Your task to perform on an android device: Open Google Chrome Image 0: 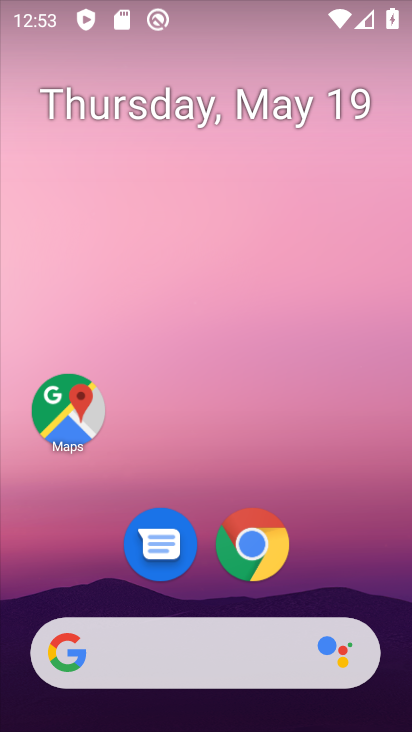
Step 0: drag from (261, 691) to (93, 287)
Your task to perform on an android device: Open Google Chrome Image 1: 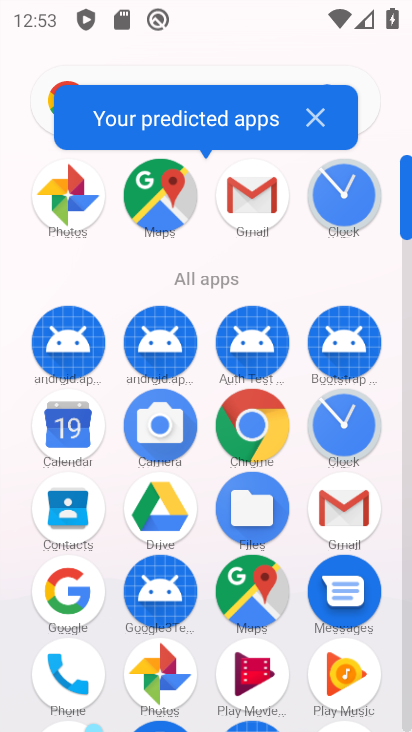
Step 1: click (246, 408)
Your task to perform on an android device: Open Google Chrome Image 2: 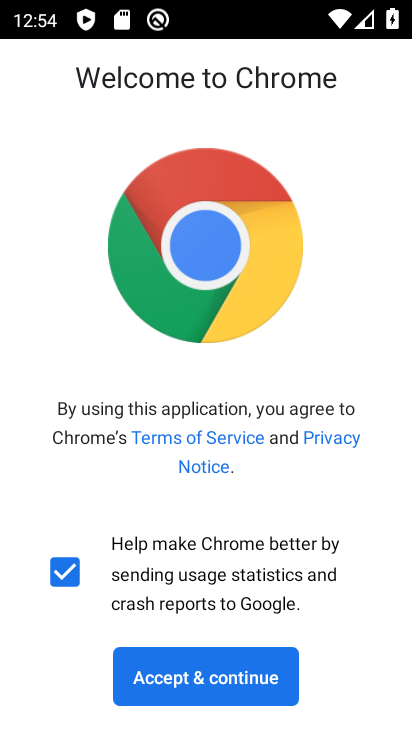
Step 2: click (226, 658)
Your task to perform on an android device: Open Google Chrome Image 3: 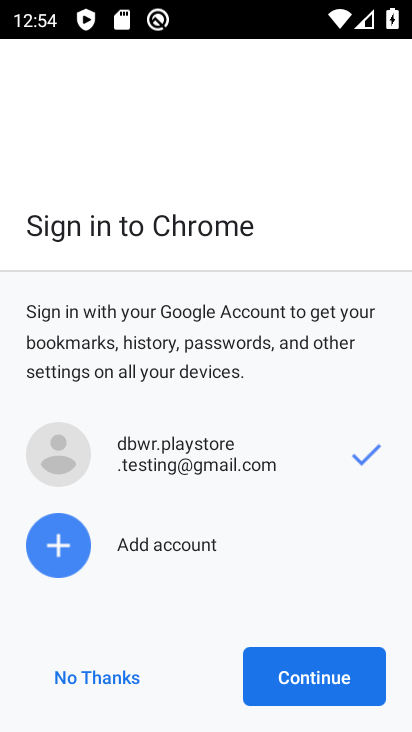
Step 3: click (310, 678)
Your task to perform on an android device: Open Google Chrome Image 4: 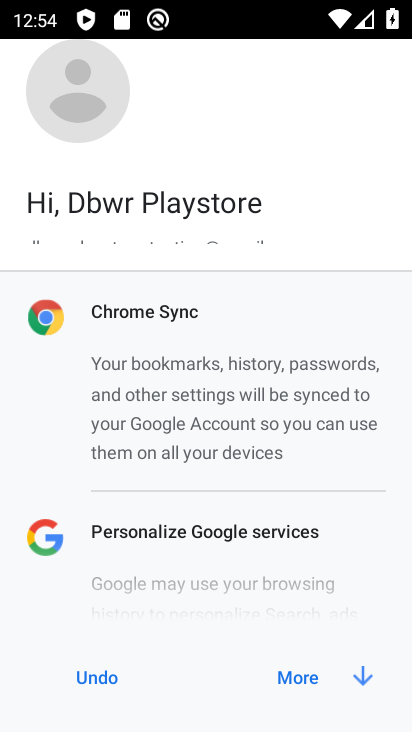
Step 4: click (355, 671)
Your task to perform on an android device: Open Google Chrome Image 5: 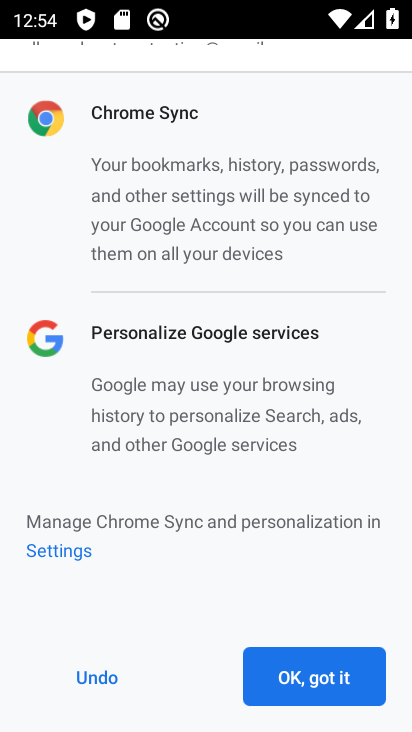
Step 5: click (338, 702)
Your task to perform on an android device: Open Google Chrome Image 6: 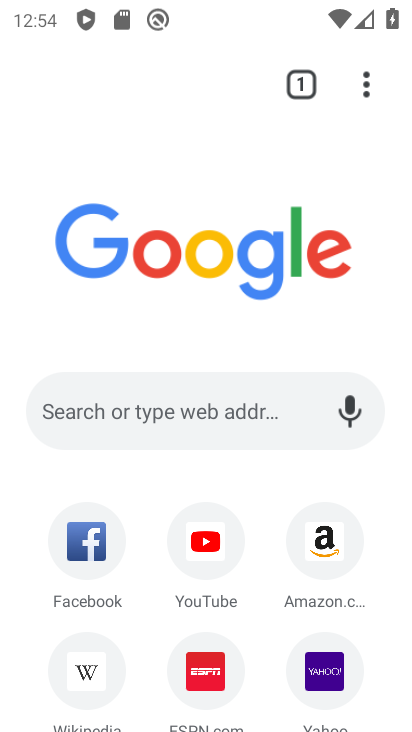
Step 6: task complete